Your task to perform on an android device: Open calendar and show me the first week of next month Image 0: 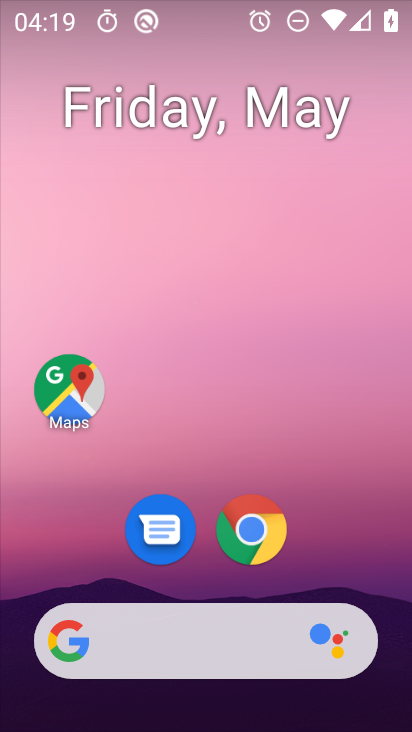
Step 0: drag from (388, 449) to (368, 252)
Your task to perform on an android device: Open calendar and show me the first week of next month Image 1: 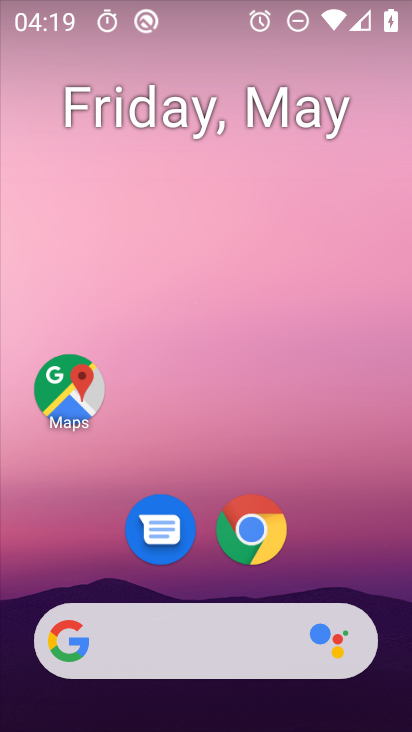
Step 1: click (358, 238)
Your task to perform on an android device: Open calendar and show me the first week of next month Image 2: 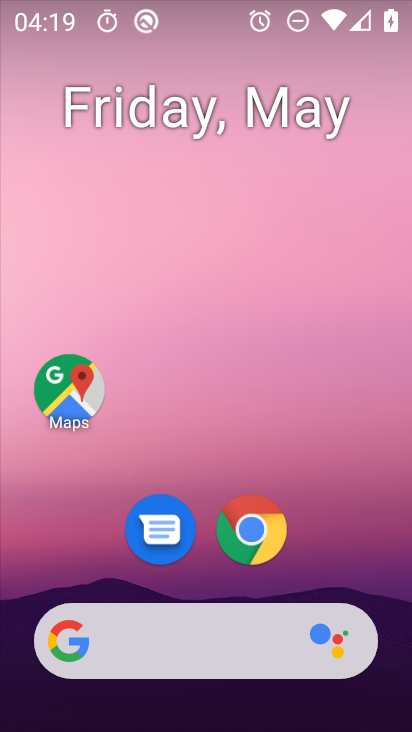
Step 2: drag from (395, 695) to (378, 204)
Your task to perform on an android device: Open calendar and show me the first week of next month Image 3: 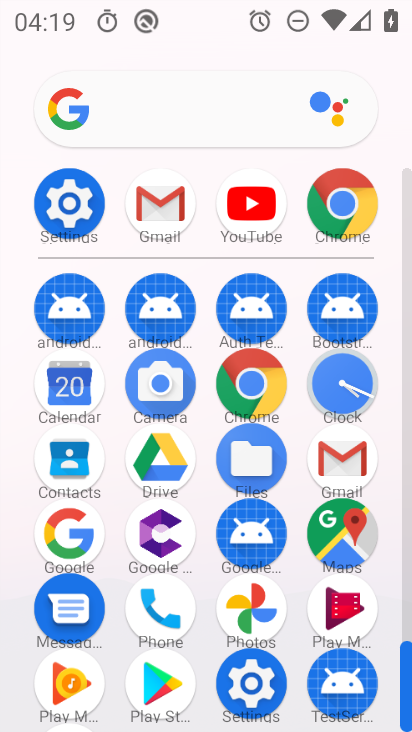
Step 3: click (67, 392)
Your task to perform on an android device: Open calendar and show me the first week of next month Image 4: 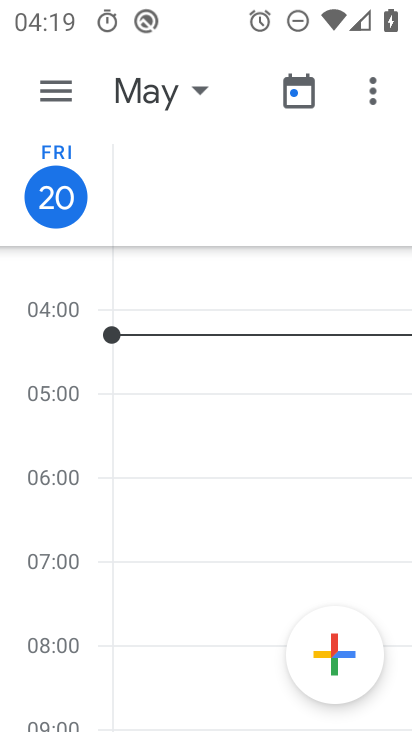
Step 4: click (202, 88)
Your task to perform on an android device: Open calendar and show me the first week of next month Image 5: 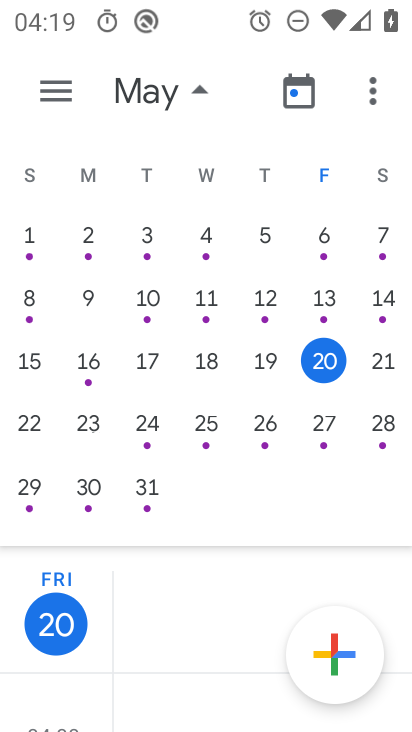
Step 5: drag from (401, 305) to (64, 281)
Your task to perform on an android device: Open calendar and show me the first week of next month Image 6: 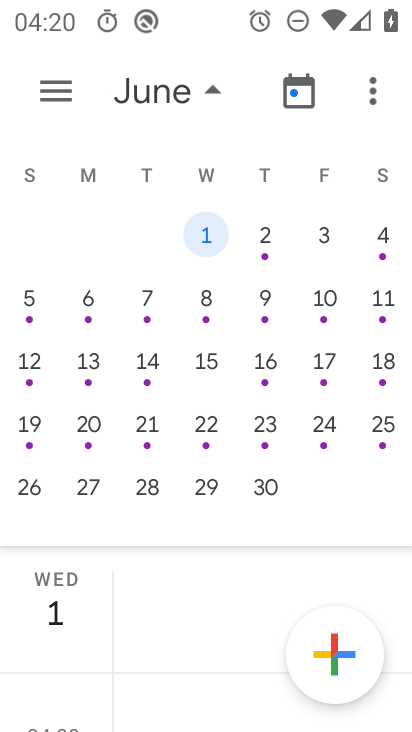
Step 6: click (265, 236)
Your task to perform on an android device: Open calendar and show me the first week of next month Image 7: 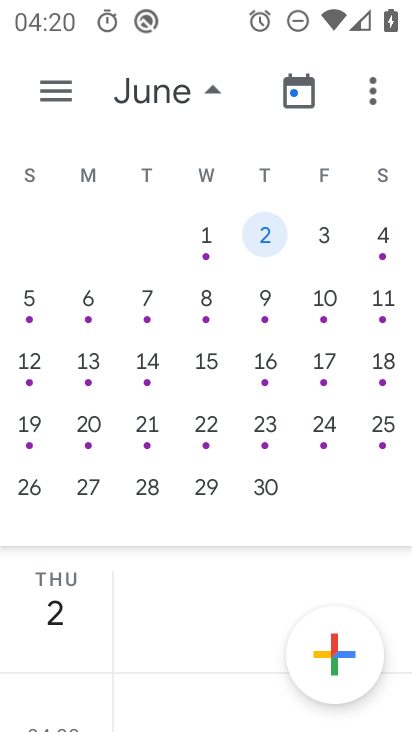
Step 7: task complete